Your task to perform on an android device: Go to CNN.com Image 0: 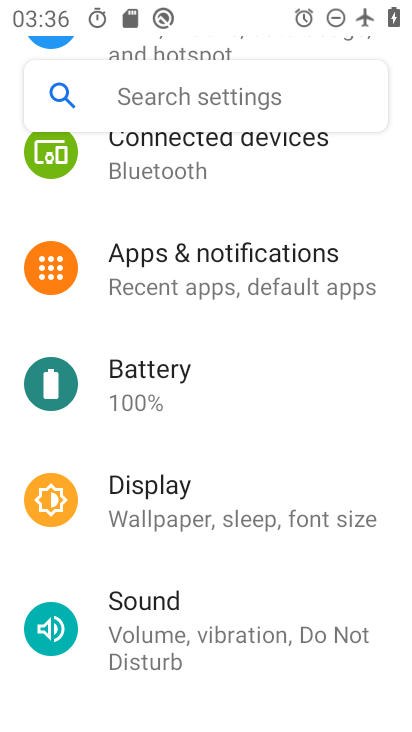
Step 0: press home button
Your task to perform on an android device: Go to CNN.com Image 1: 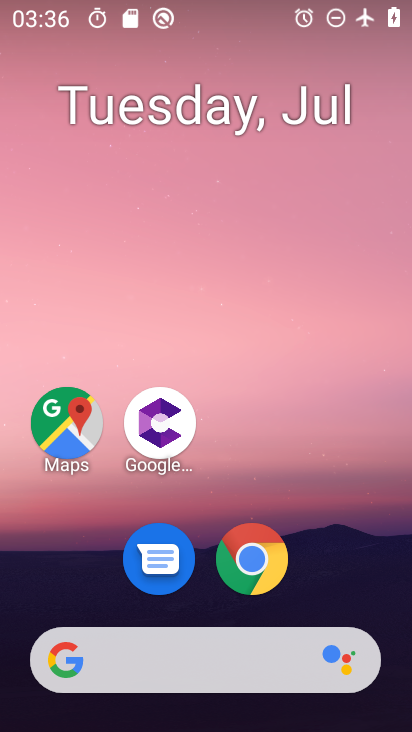
Step 1: drag from (374, 542) to (354, 146)
Your task to perform on an android device: Go to CNN.com Image 2: 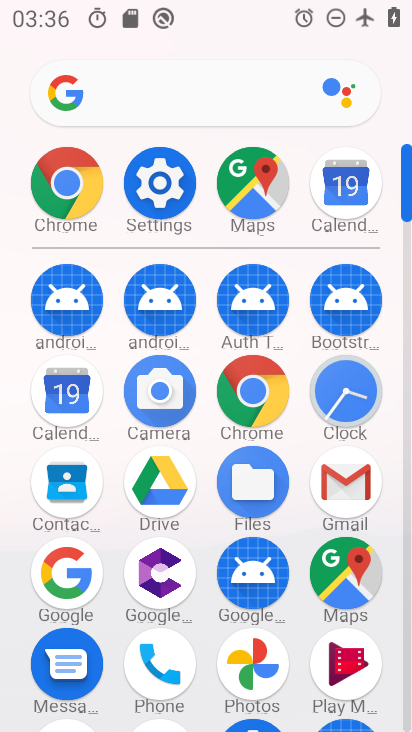
Step 2: click (260, 397)
Your task to perform on an android device: Go to CNN.com Image 3: 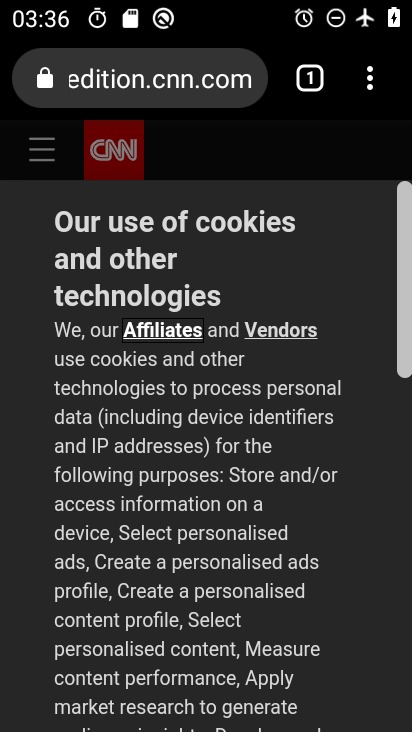
Step 3: click (217, 79)
Your task to perform on an android device: Go to CNN.com Image 4: 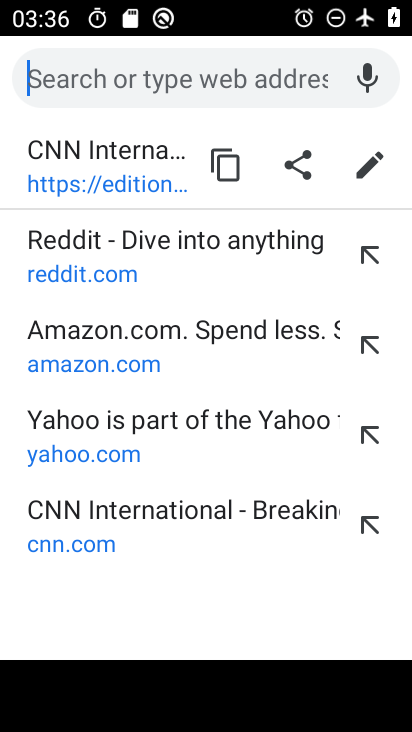
Step 4: type "cnn.com"
Your task to perform on an android device: Go to CNN.com Image 5: 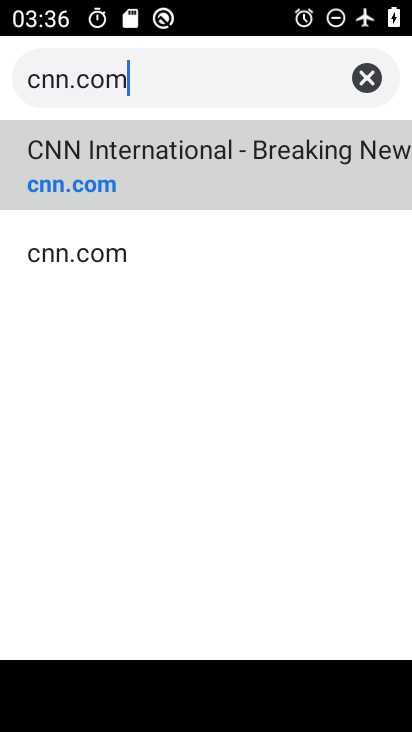
Step 5: click (127, 188)
Your task to perform on an android device: Go to CNN.com Image 6: 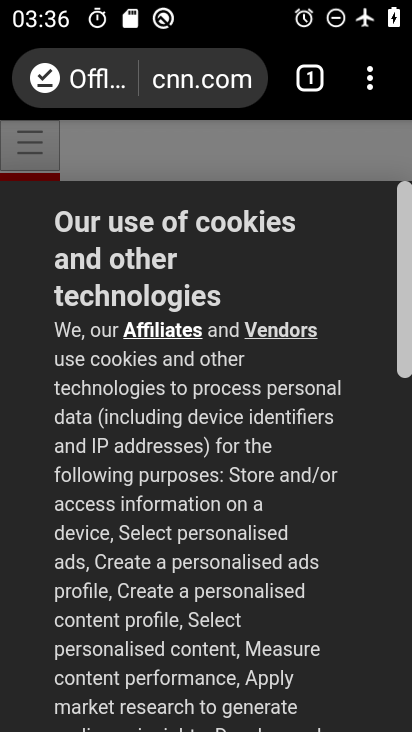
Step 6: task complete